Your task to perform on an android device: turn on airplane mode Image 0: 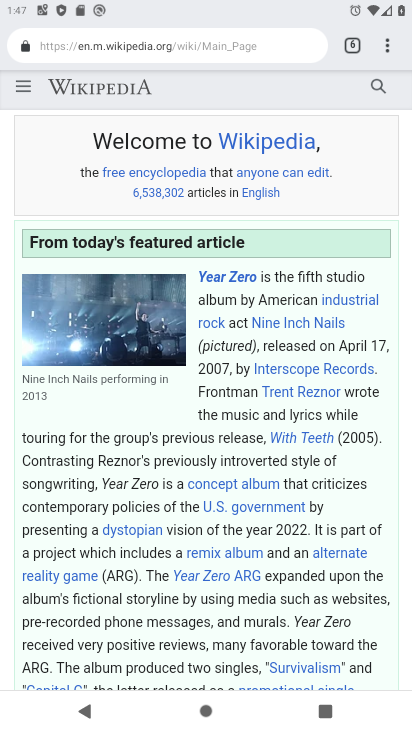
Step 0: press home button
Your task to perform on an android device: turn on airplane mode Image 1: 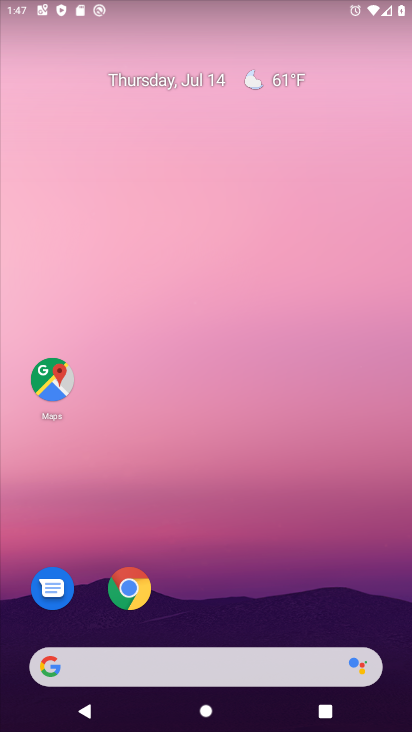
Step 1: drag from (345, 608) to (336, 46)
Your task to perform on an android device: turn on airplane mode Image 2: 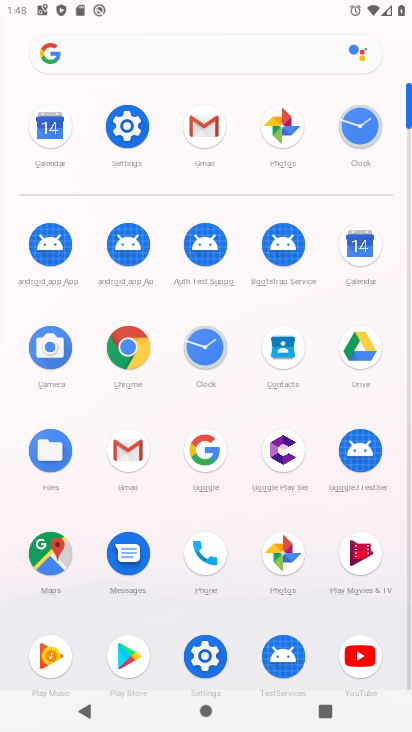
Step 2: click (122, 122)
Your task to perform on an android device: turn on airplane mode Image 3: 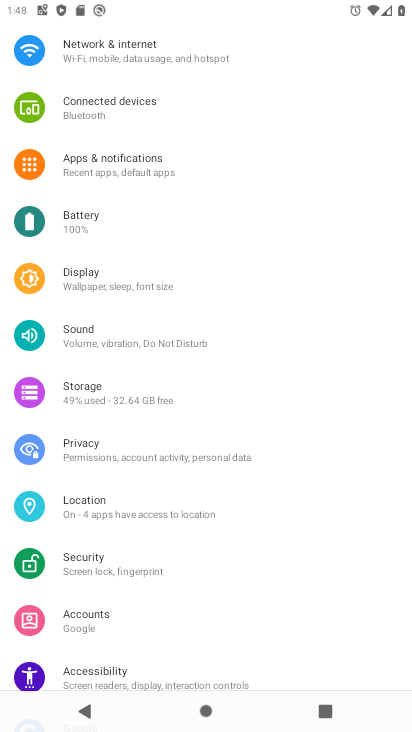
Step 3: click (137, 39)
Your task to perform on an android device: turn on airplane mode Image 4: 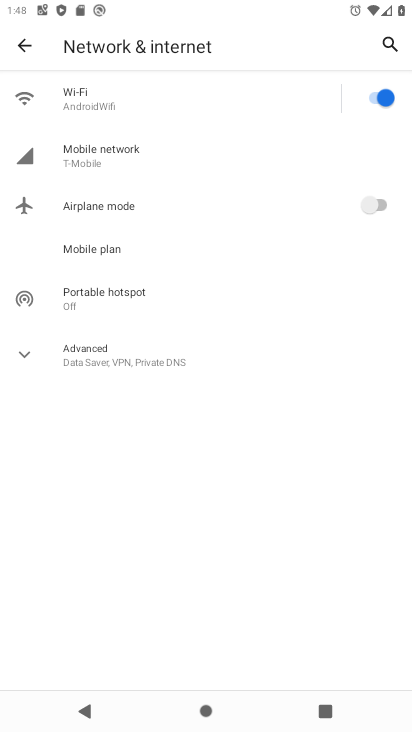
Step 4: click (389, 198)
Your task to perform on an android device: turn on airplane mode Image 5: 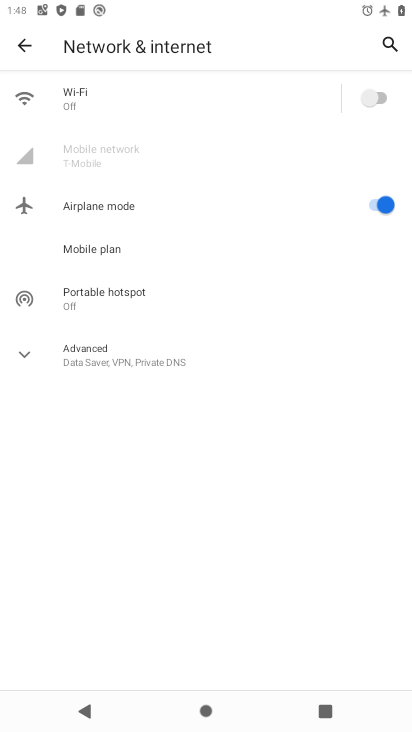
Step 5: task complete